Your task to perform on an android device: toggle wifi Image 0: 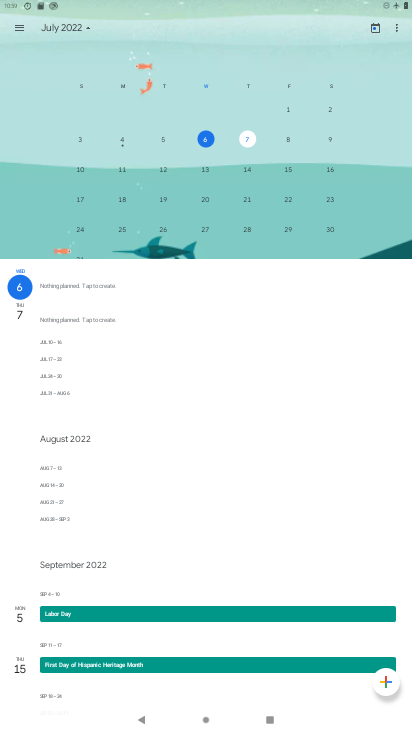
Step 0: press back button
Your task to perform on an android device: toggle wifi Image 1: 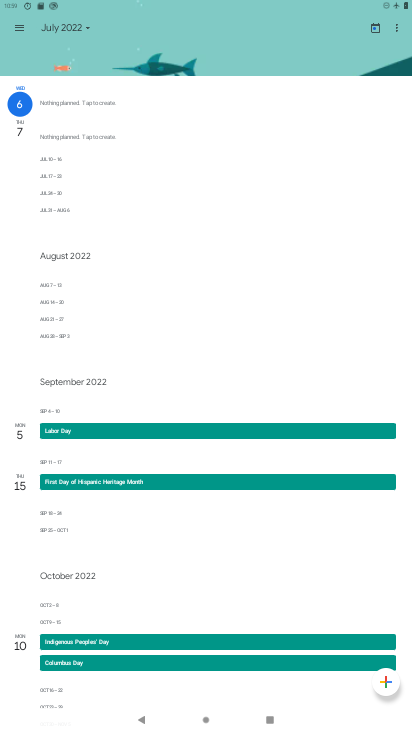
Step 1: press back button
Your task to perform on an android device: toggle wifi Image 2: 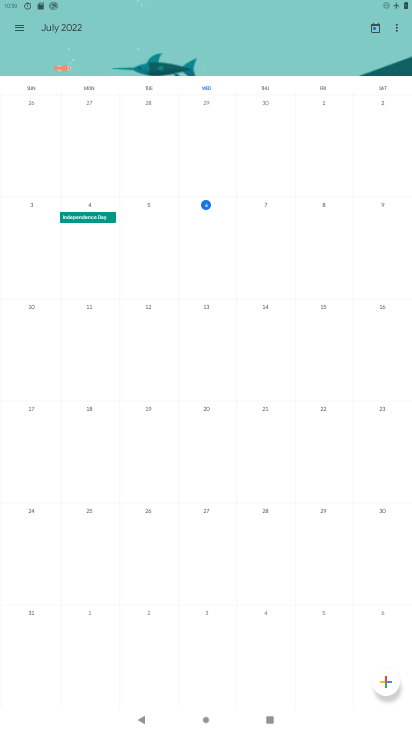
Step 2: press back button
Your task to perform on an android device: toggle wifi Image 3: 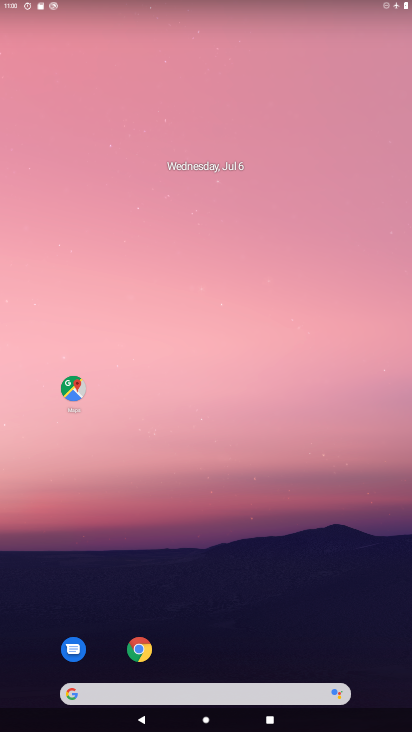
Step 3: drag from (383, 707) to (336, 116)
Your task to perform on an android device: toggle wifi Image 4: 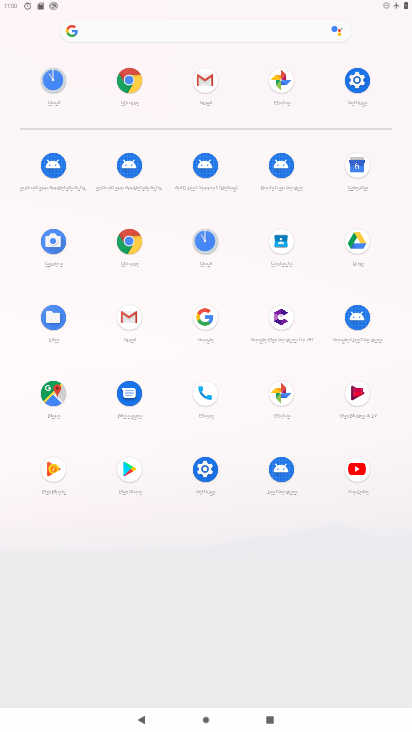
Step 4: click (348, 90)
Your task to perform on an android device: toggle wifi Image 5: 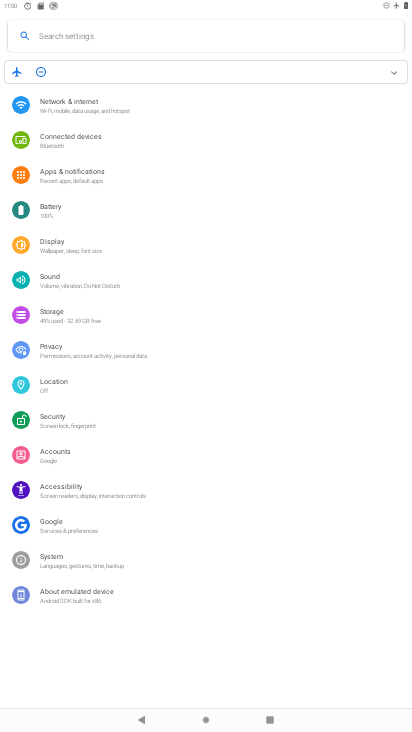
Step 5: click (73, 109)
Your task to perform on an android device: toggle wifi Image 6: 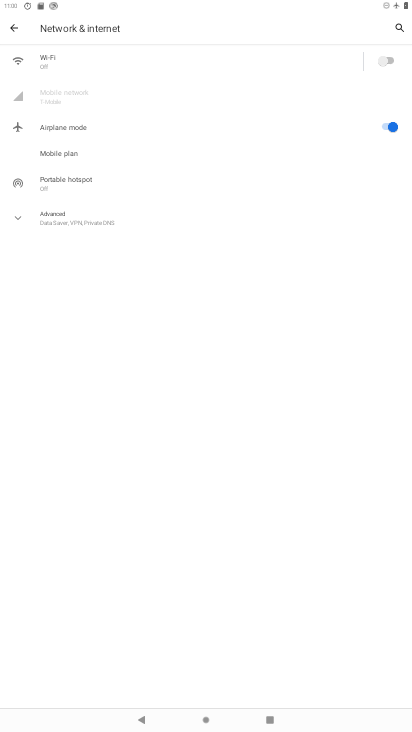
Step 6: click (387, 54)
Your task to perform on an android device: toggle wifi Image 7: 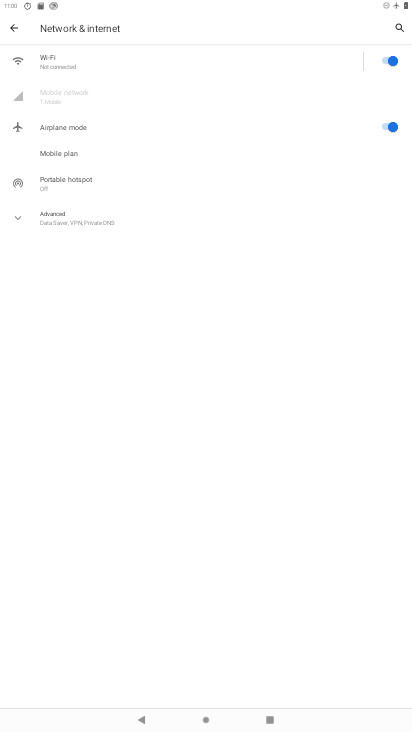
Step 7: task complete